Your task to perform on an android device: Search for sushi restaurants on Maps Image 0: 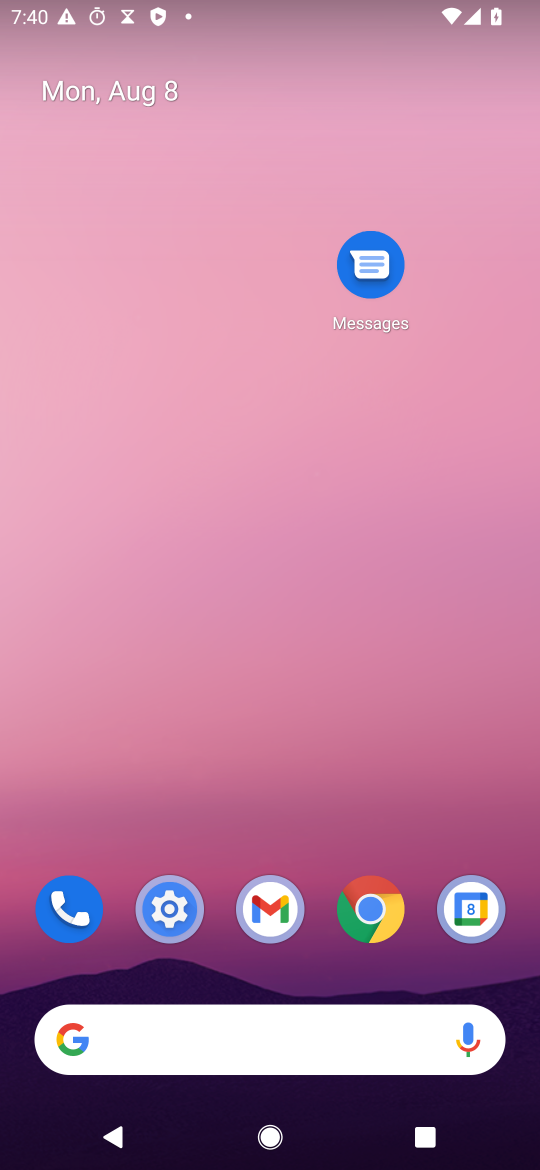
Step 0: drag from (246, 874) to (492, 79)
Your task to perform on an android device: Search for sushi restaurants on Maps Image 1: 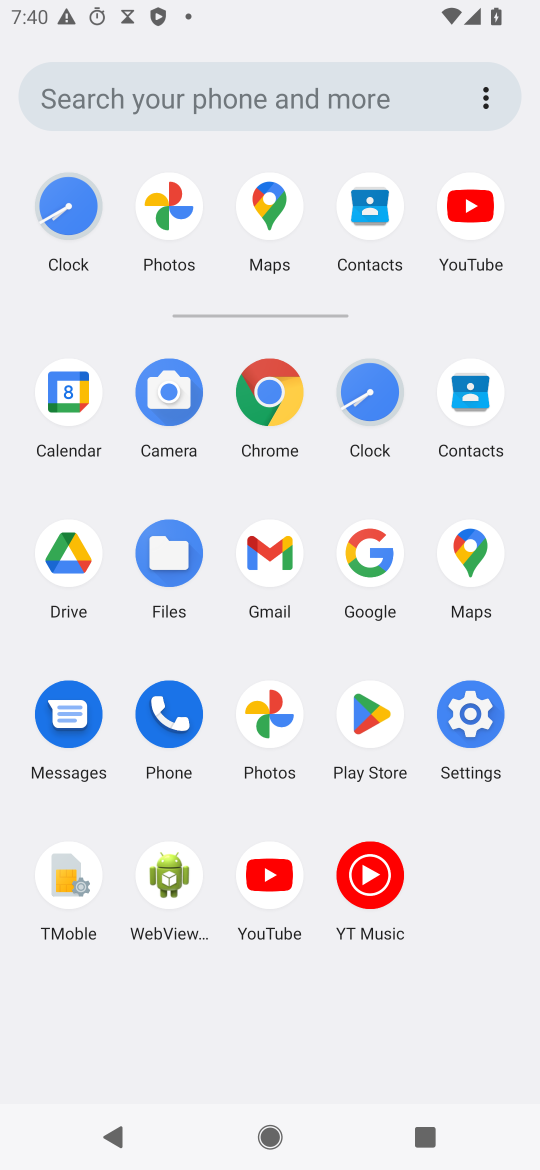
Step 1: click (473, 542)
Your task to perform on an android device: Search for sushi restaurants on Maps Image 2: 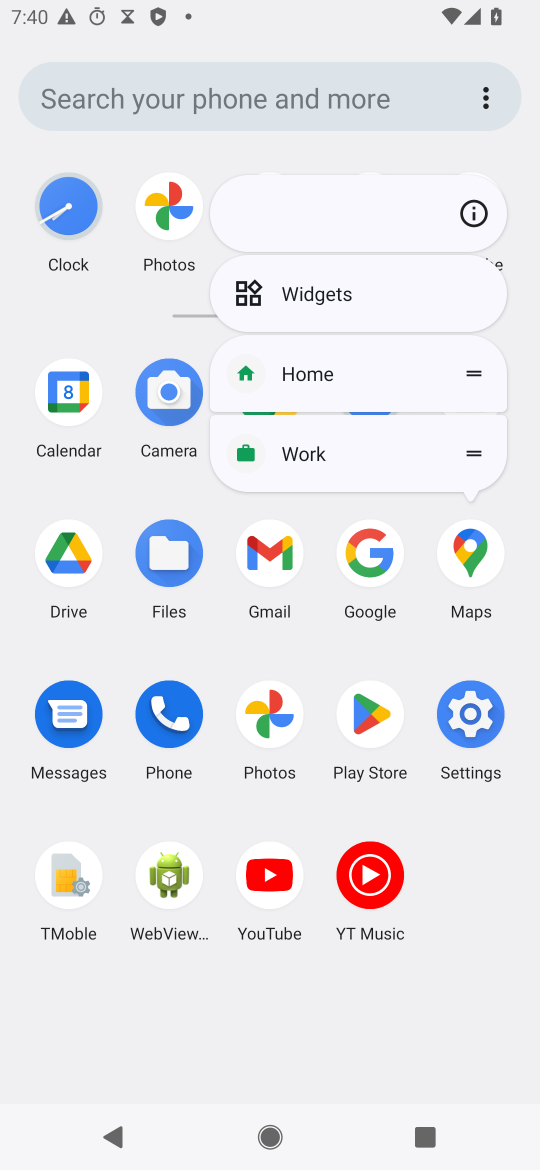
Step 2: click (466, 550)
Your task to perform on an android device: Search for sushi restaurants on Maps Image 3: 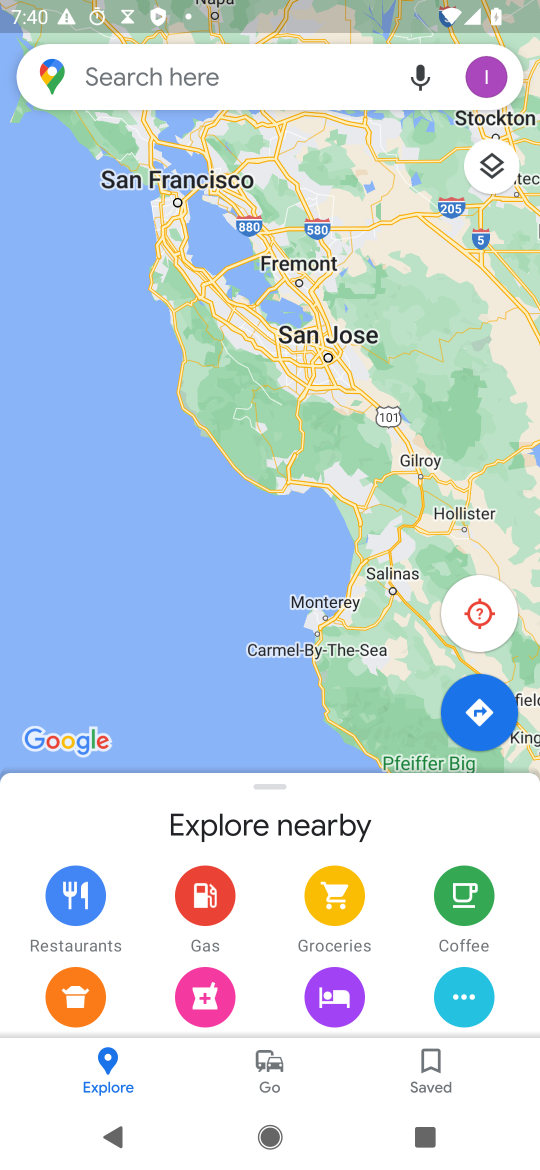
Step 3: click (244, 67)
Your task to perform on an android device: Search for sushi restaurants on Maps Image 4: 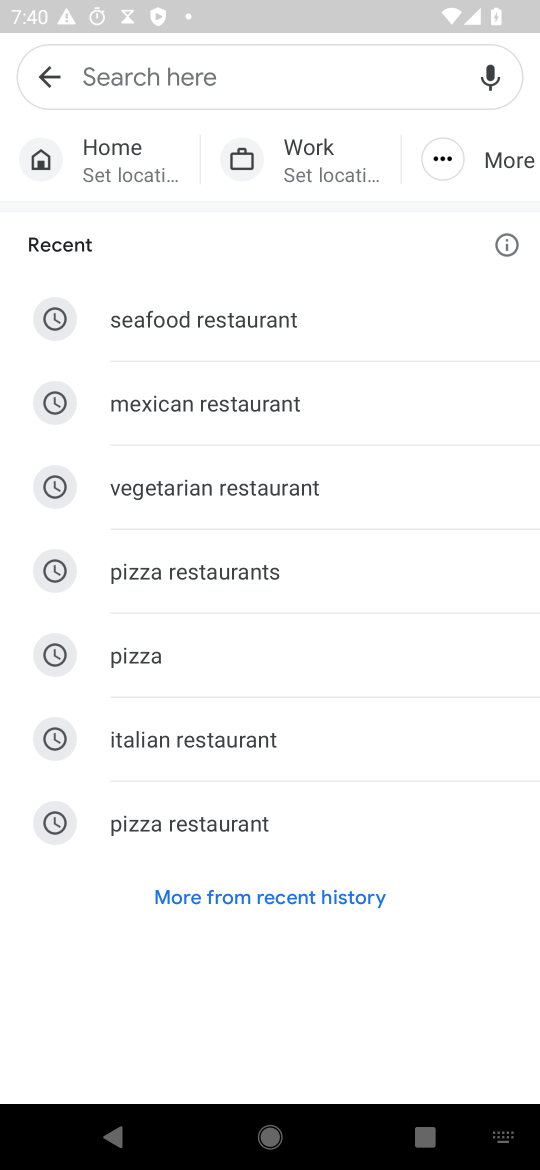
Step 4: type " sushi restaurants "
Your task to perform on an android device: Search for sushi restaurants on Maps Image 5: 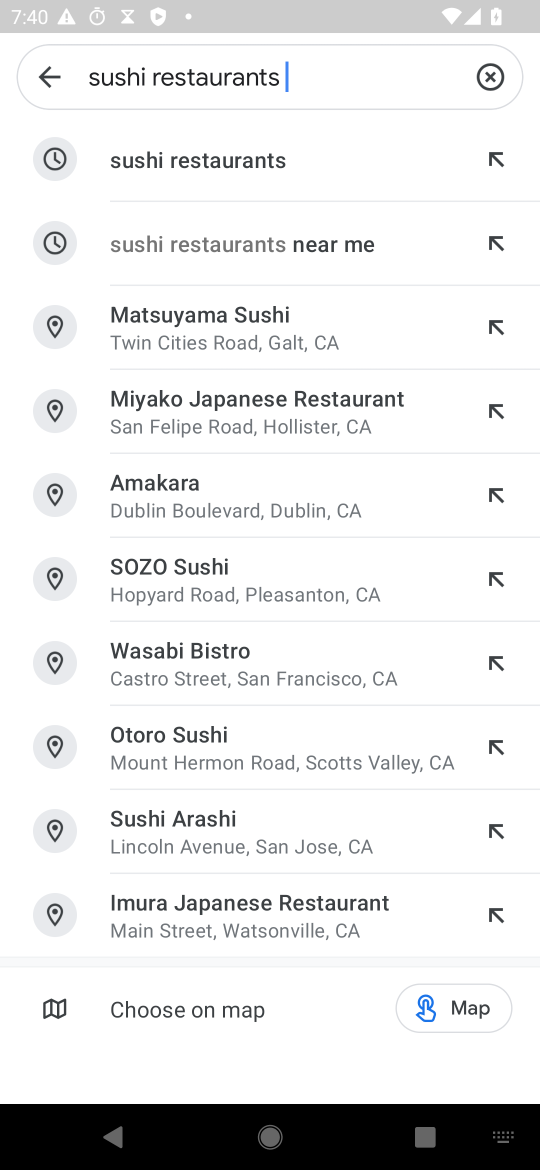
Step 5: click (236, 166)
Your task to perform on an android device: Search for sushi restaurants on Maps Image 6: 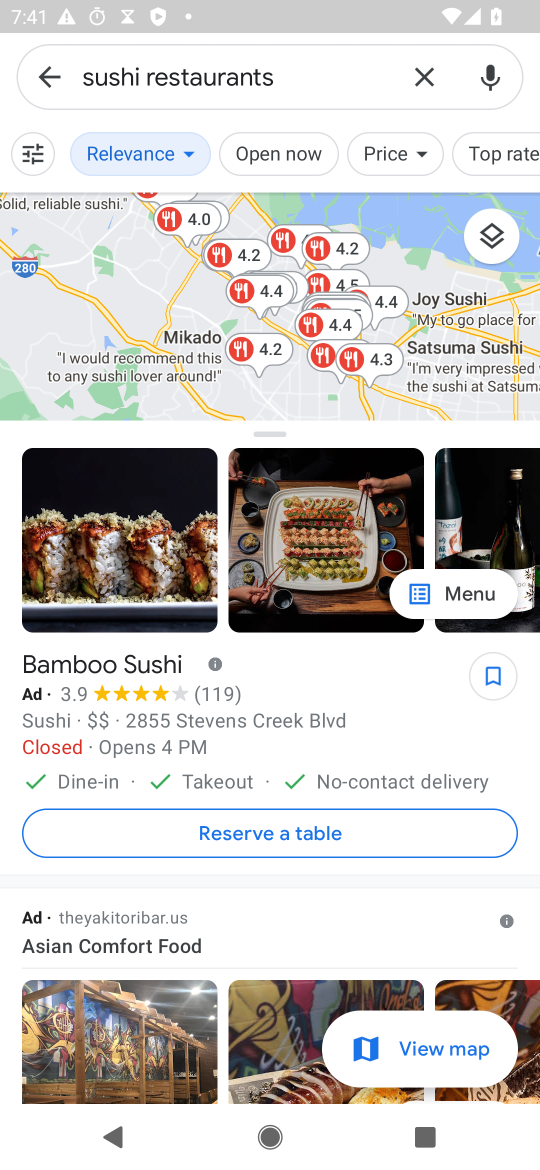
Step 6: task complete